Your task to perform on an android device: Open display settings Image 0: 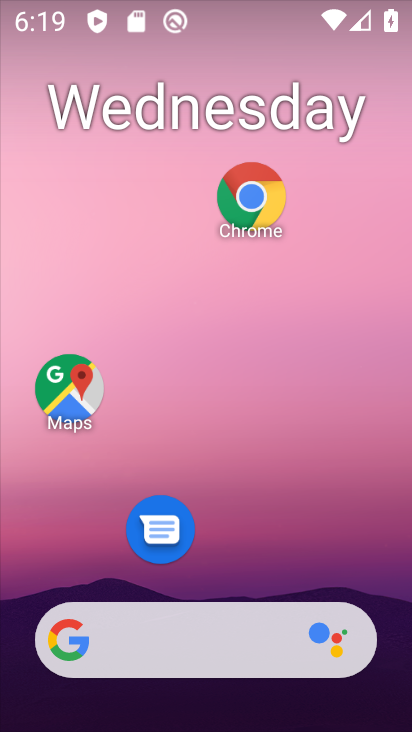
Step 0: drag from (231, 603) to (265, 131)
Your task to perform on an android device: Open display settings Image 1: 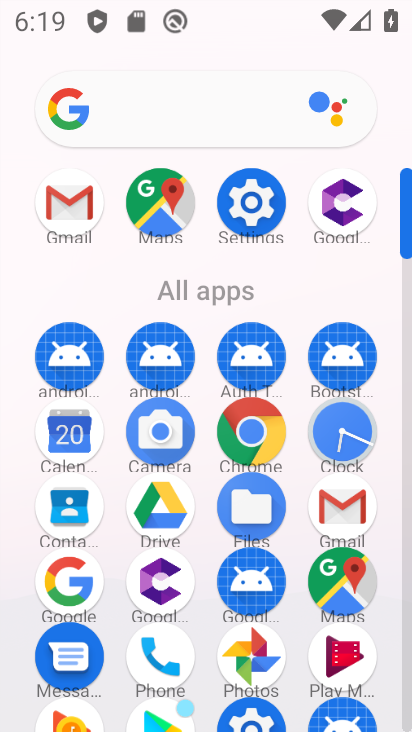
Step 1: click (258, 205)
Your task to perform on an android device: Open display settings Image 2: 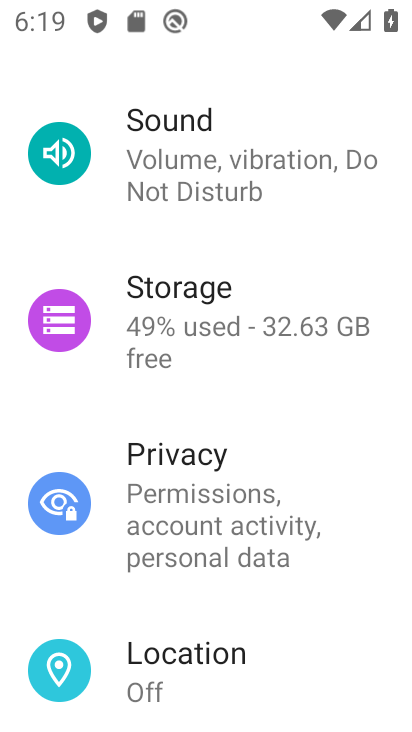
Step 2: drag from (210, 665) to (242, 353)
Your task to perform on an android device: Open display settings Image 3: 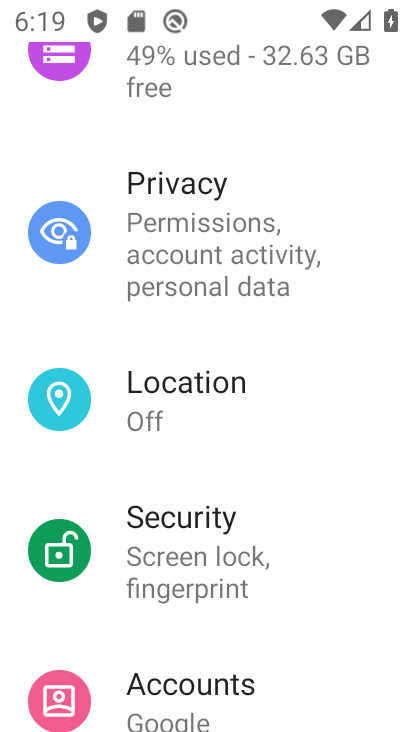
Step 3: drag from (253, 175) to (235, 633)
Your task to perform on an android device: Open display settings Image 4: 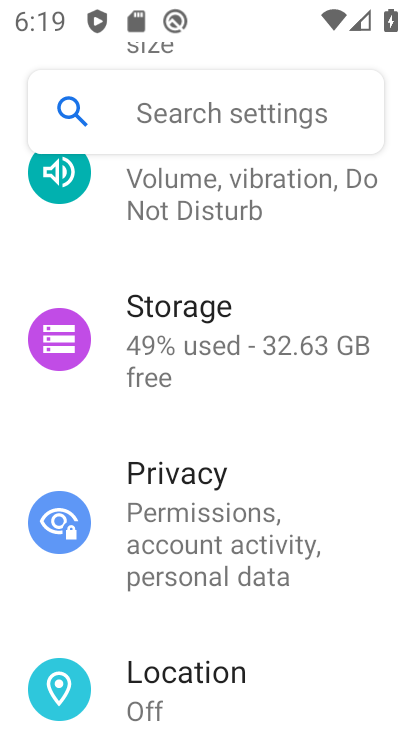
Step 4: drag from (229, 176) to (229, 583)
Your task to perform on an android device: Open display settings Image 5: 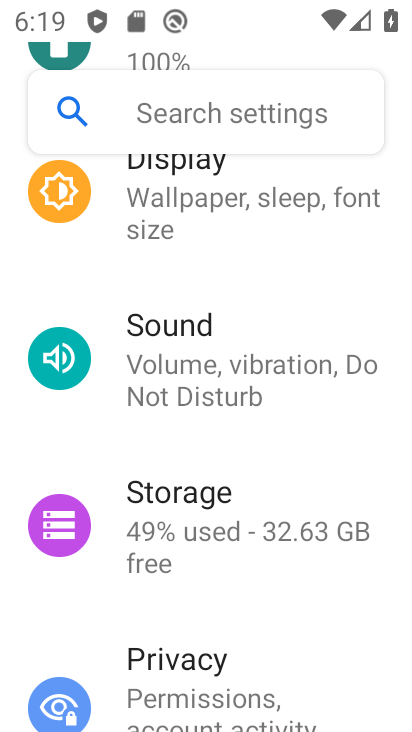
Step 5: click (187, 194)
Your task to perform on an android device: Open display settings Image 6: 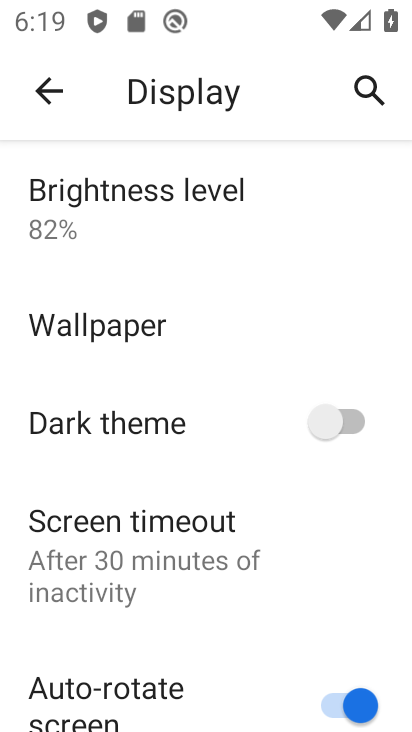
Step 6: drag from (146, 693) to (161, 297)
Your task to perform on an android device: Open display settings Image 7: 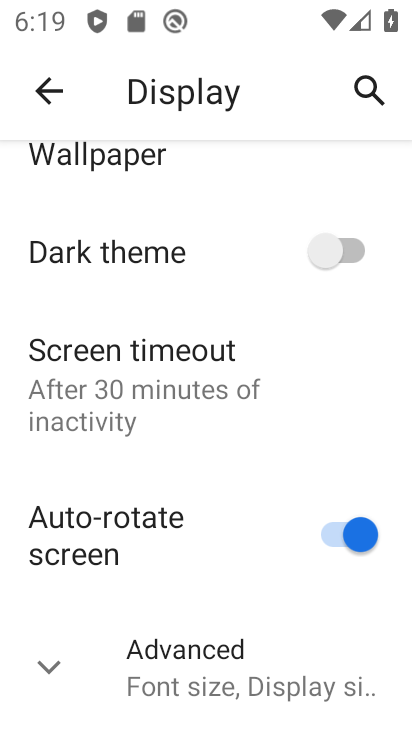
Step 7: click (192, 665)
Your task to perform on an android device: Open display settings Image 8: 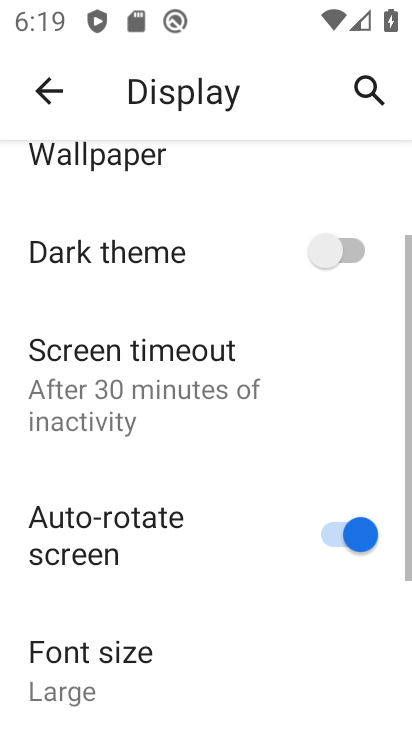
Step 8: task complete